Your task to perform on an android device: delete the emails in spam in the gmail app Image 0: 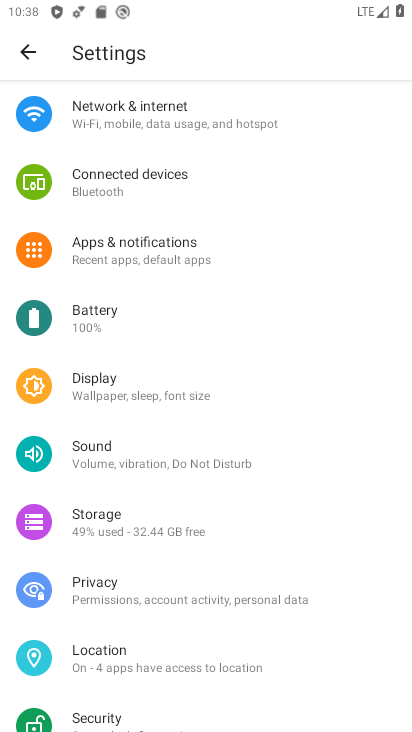
Step 0: press home button
Your task to perform on an android device: delete the emails in spam in the gmail app Image 1: 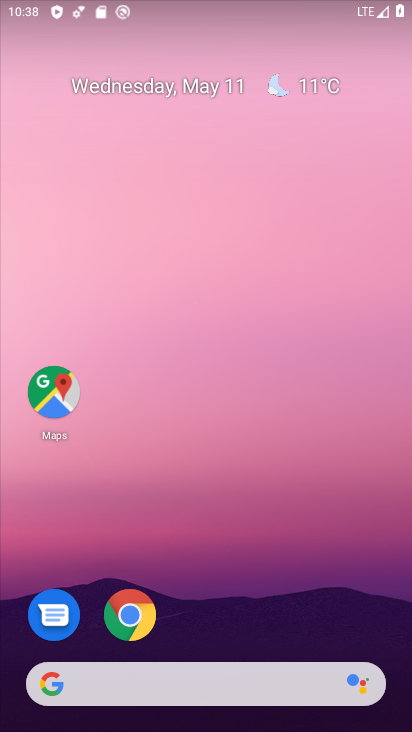
Step 1: drag from (263, 562) to (230, 115)
Your task to perform on an android device: delete the emails in spam in the gmail app Image 2: 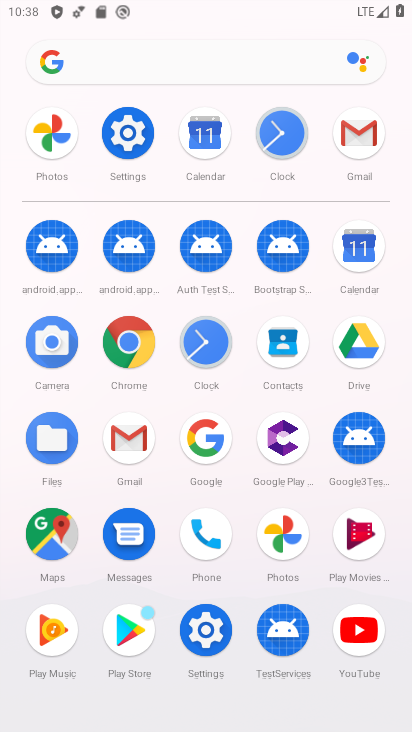
Step 2: click (367, 130)
Your task to perform on an android device: delete the emails in spam in the gmail app Image 3: 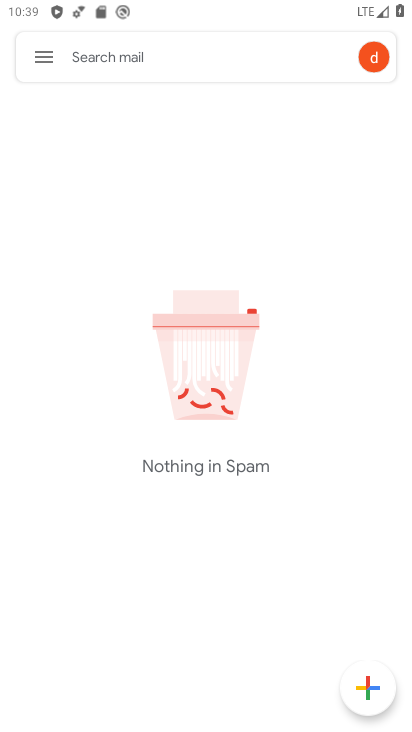
Step 3: task complete